Your task to perform on an android device: open wifi settings Image 0: 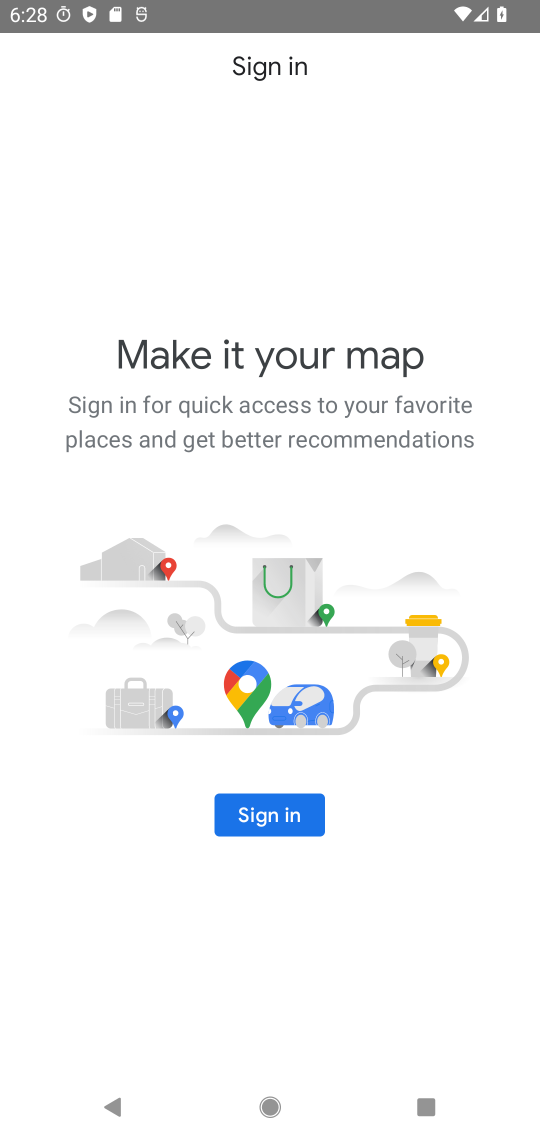
Step 0: press home button
Your task to perform on an android device: open wifi settings Image 1: 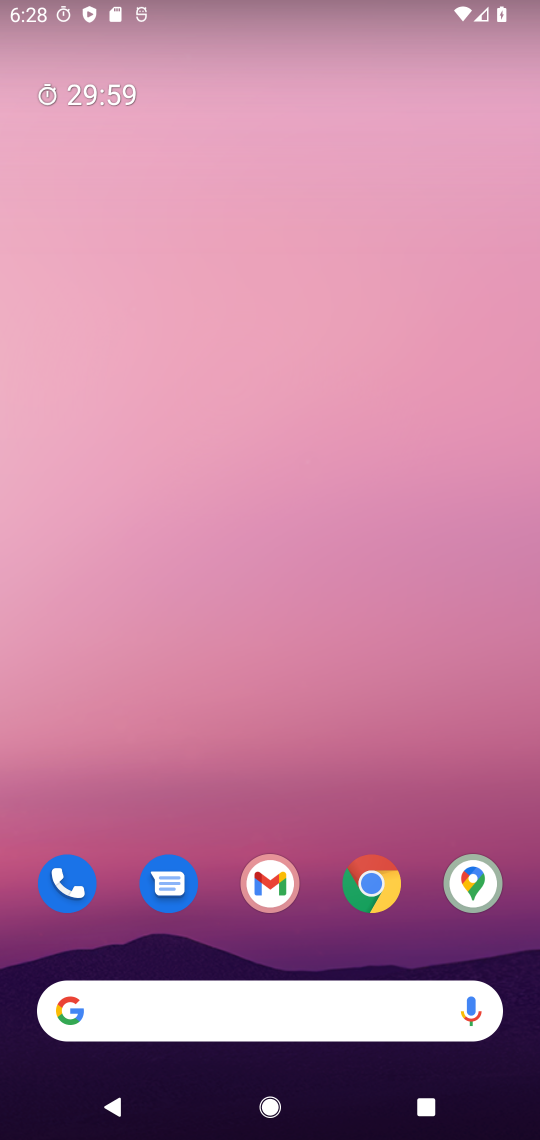
Step 1: drag from (322, 819) to (334, 212)
Your task to perform on an android device: open wifi settings Image 2: 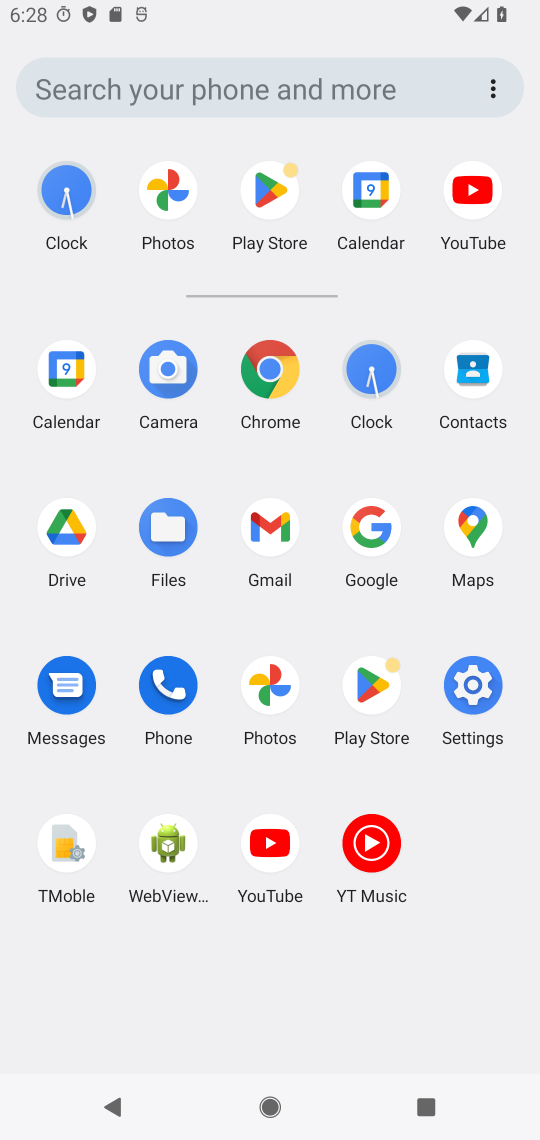
Step 2: click (500, 724)
Your task to perform on an android device: open wifi settings Image 3: 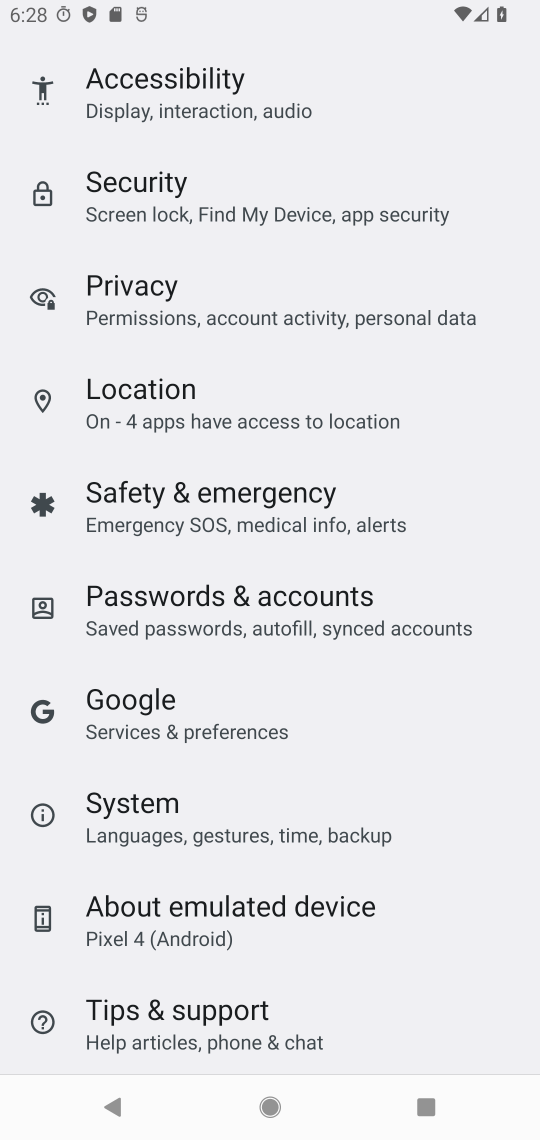
Step 3: drag from (297, 221) to (362, 785)
Your task to perform on an android device: open wifi settings Image 4: 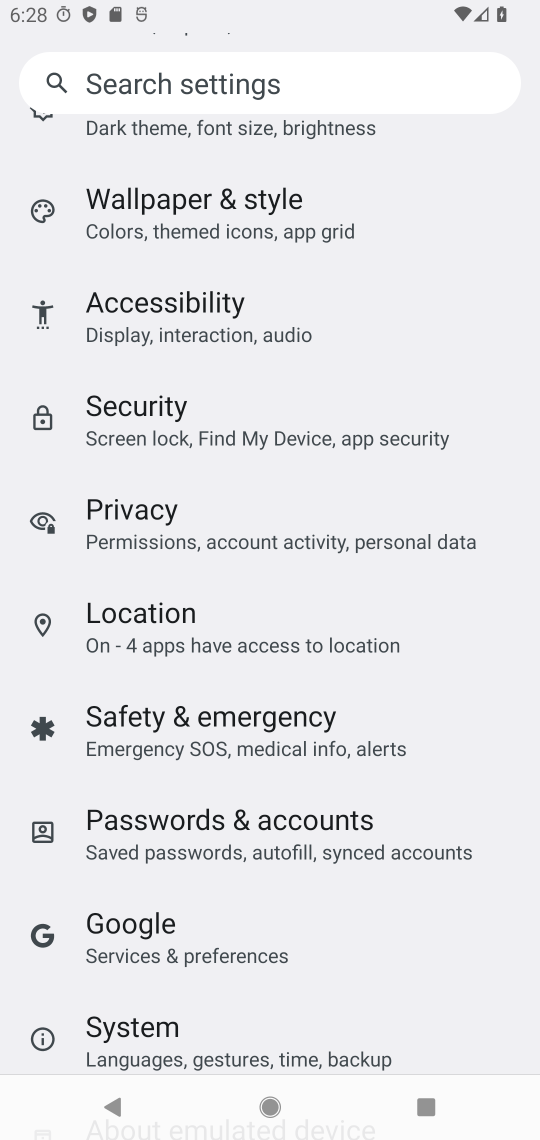
Step 4: drag from (289, 445) to (352, 866)
Your task to perform on an android device: open wifi settings Image 5: 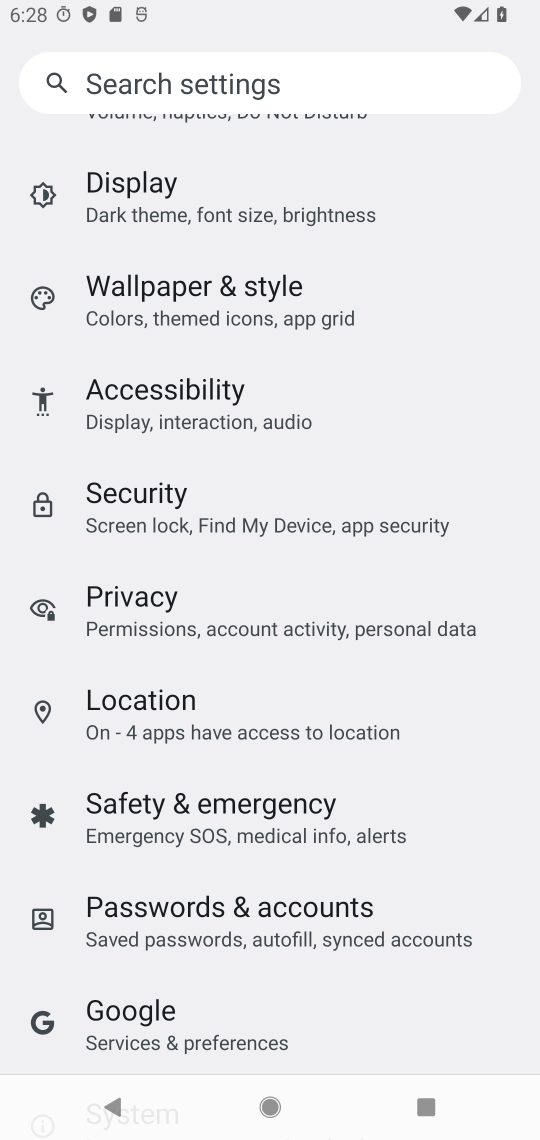
Step 5: drag from (298, 500) to (308, 1001)
Your task to perform on an android device: open wifi settings Image 6: 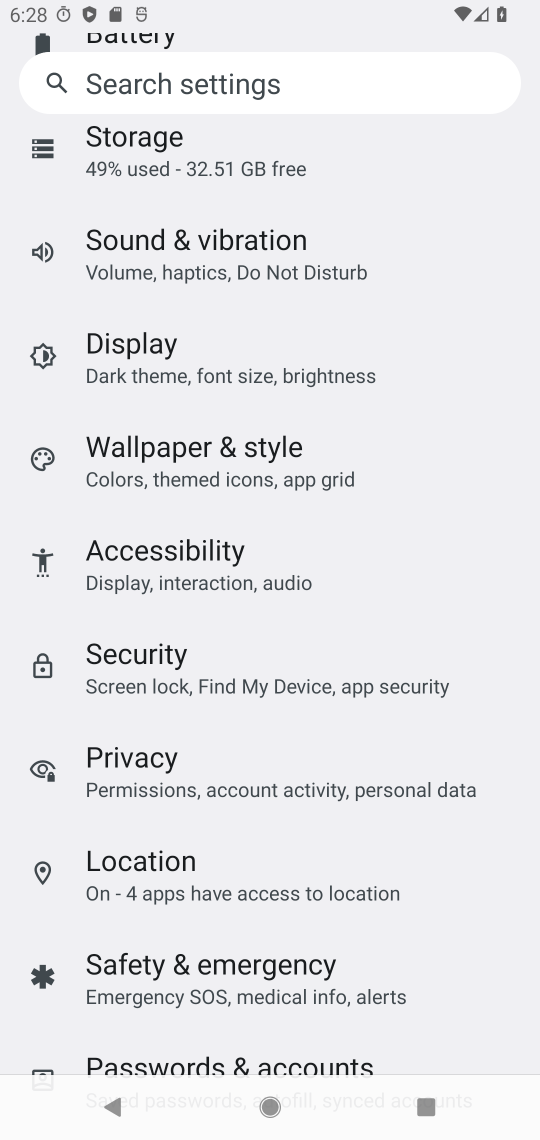
Step 6: drag from (221, 472) to (276, 856)
Your task to perform on an android device: open wifi settings Image 7: 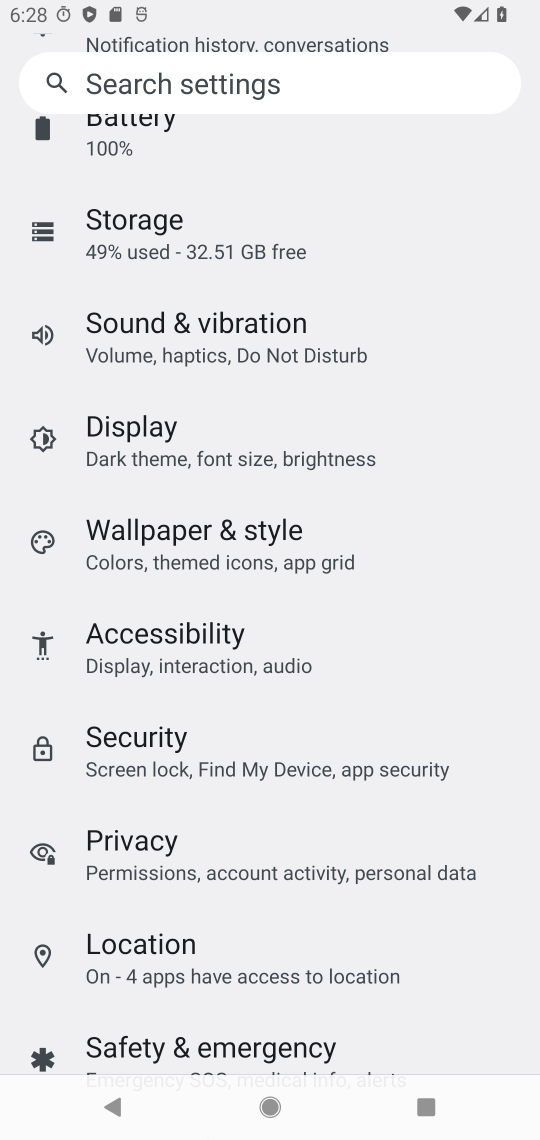
Step 7: drag from (246, 345) to (326, 876)
Your task to perform on an android device: open wifi settings Image 8: 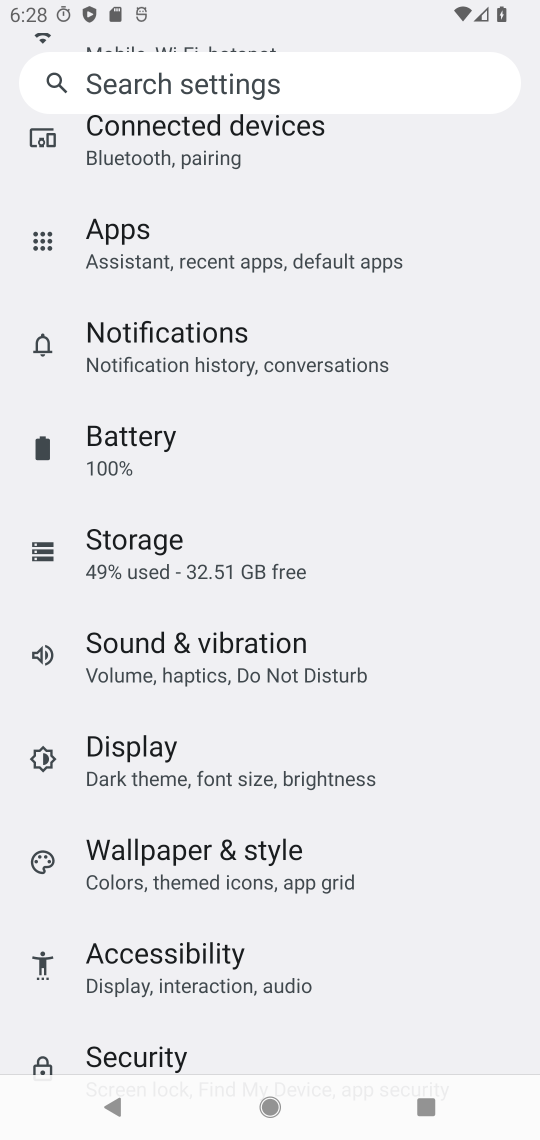
Step 8: drag from (293, 406) to (372, 971)
Your task to perform on an android device: open wifi settings Image 9: 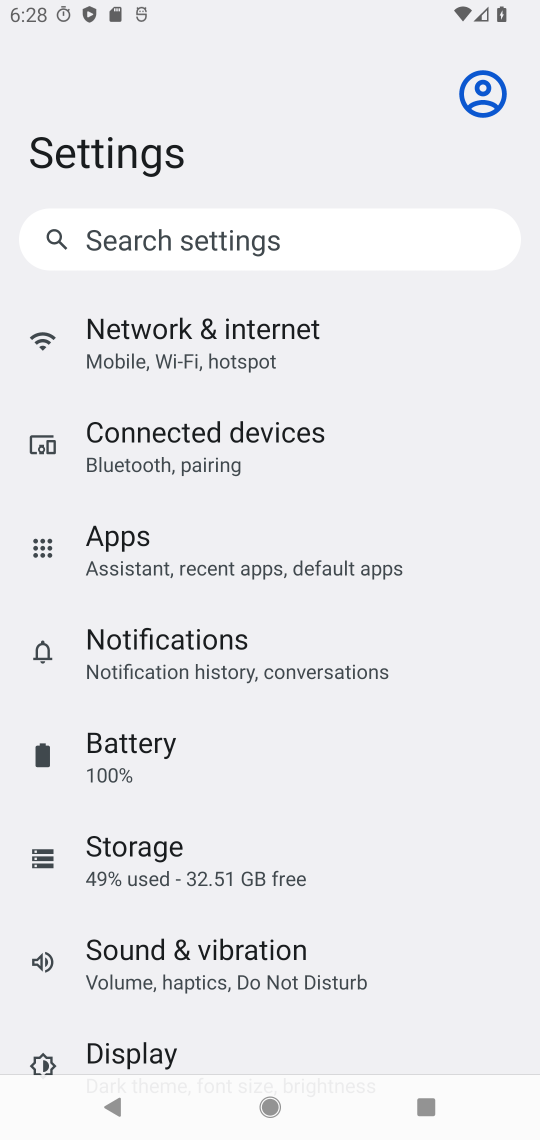
Step 9: click (255, 351)
Your task to perform on an android device: open wifi settings Image 10: 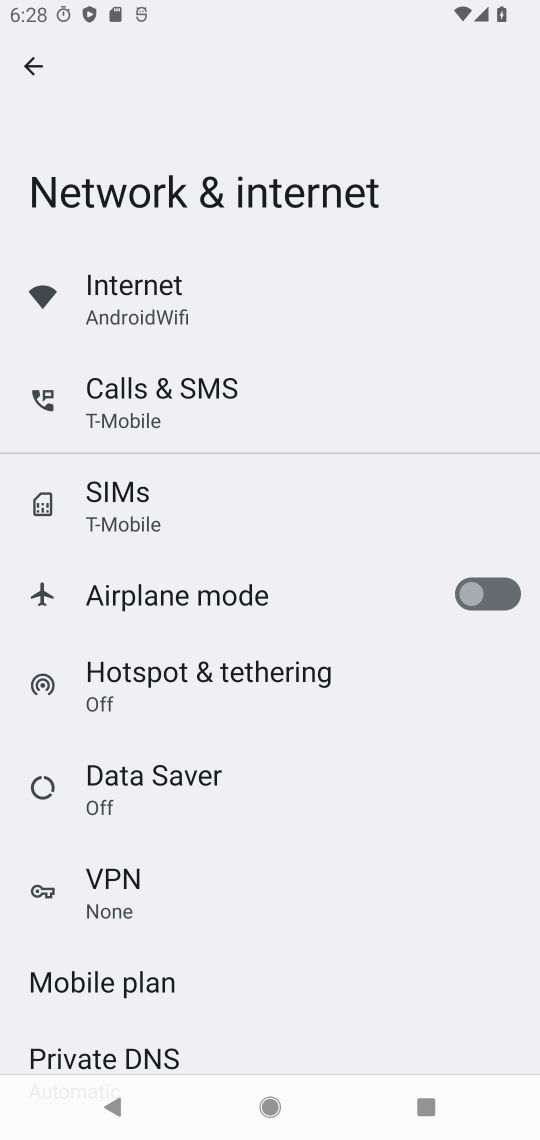
Step 10: click (201, 302)
Your task to perform on an android device: open wifi settings Image 11: 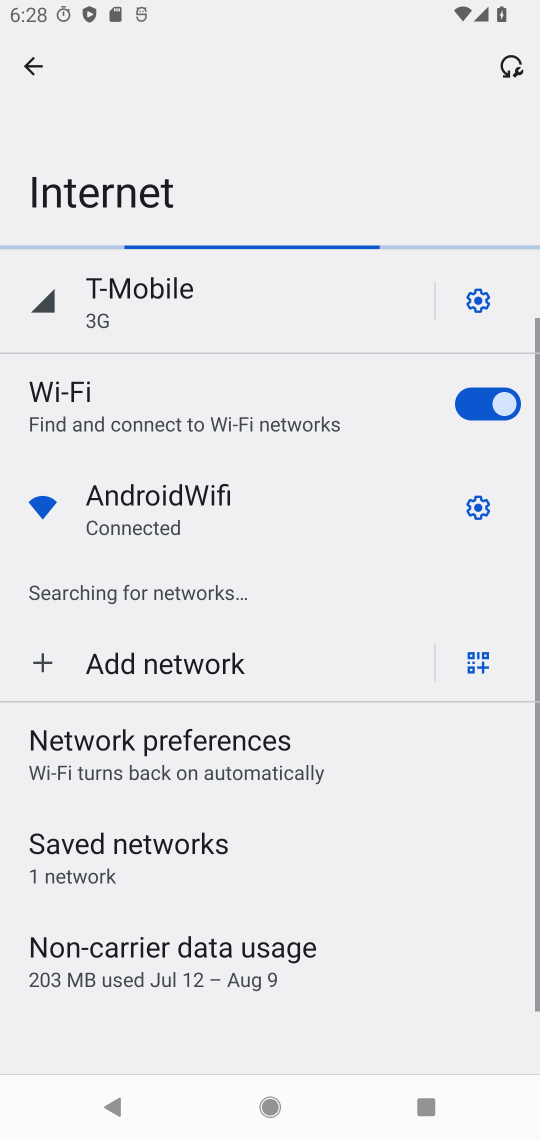
Step 11: task complete